Your task to perform on an android device: open sync settings in chrome Image 0: 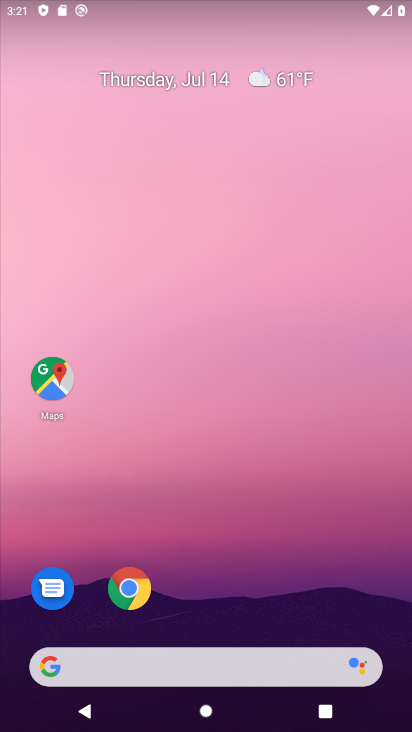
Step 0: click (142, 590)
Your task to perform on an android device: open sync settings in chrome Image 1: 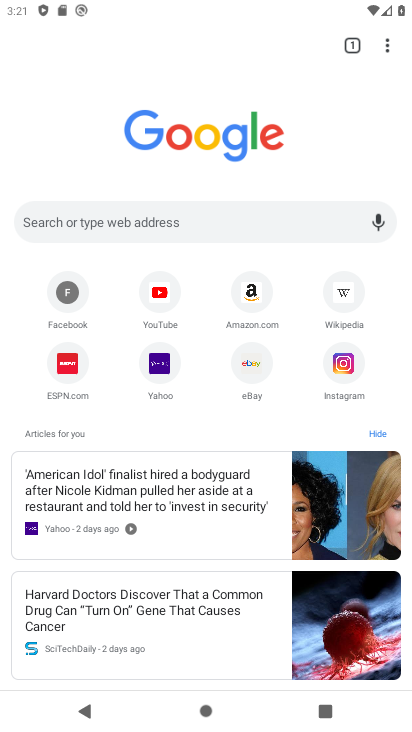
Step 1: drag from (388, 43) to (219, 382)
Your task to perform on an android device: open sync settings in chrome Image 2: 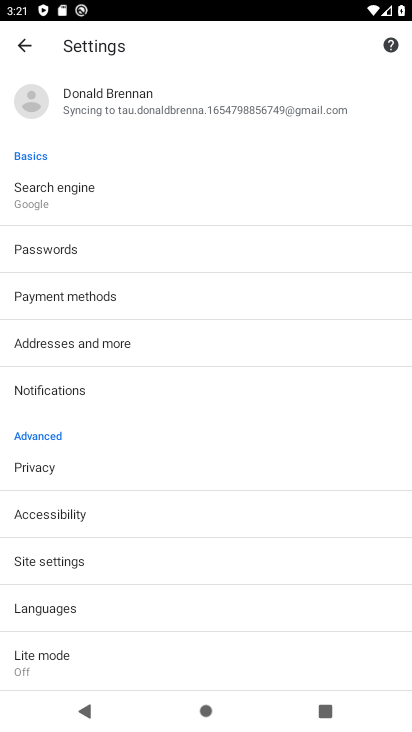
Step 2: click (33, 561)
Your task to perform on an android device: open sync settings in chrome Image 3: 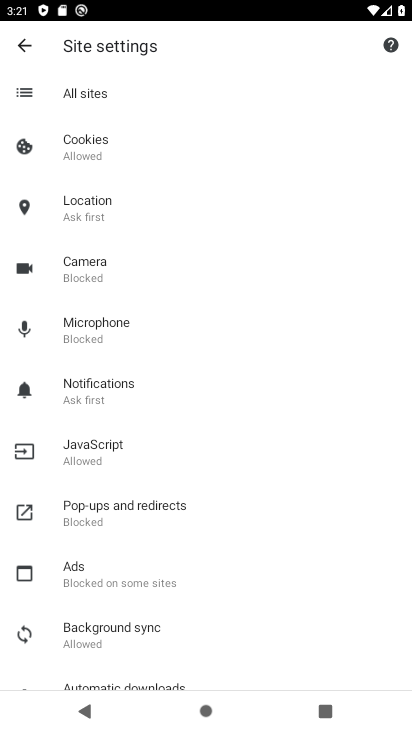
Step 3: drag from (267, 620) to (258, 476)
Your task to perform on an android device: open sync settings in chrome Image 4: 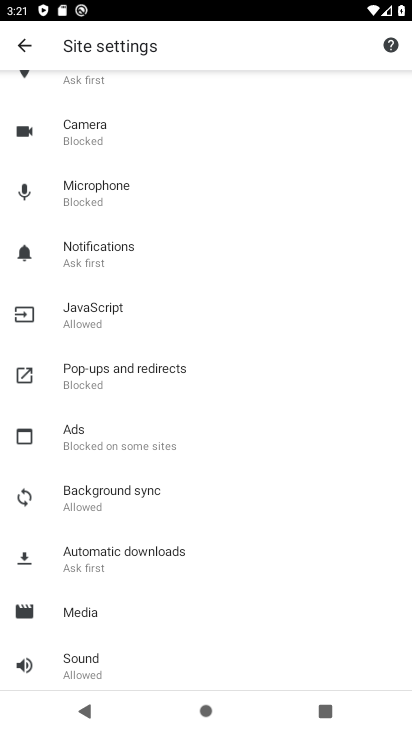
Step 4: click (117, 495)
Your task to perform on an android device: open sync settings in chrome Image 5: 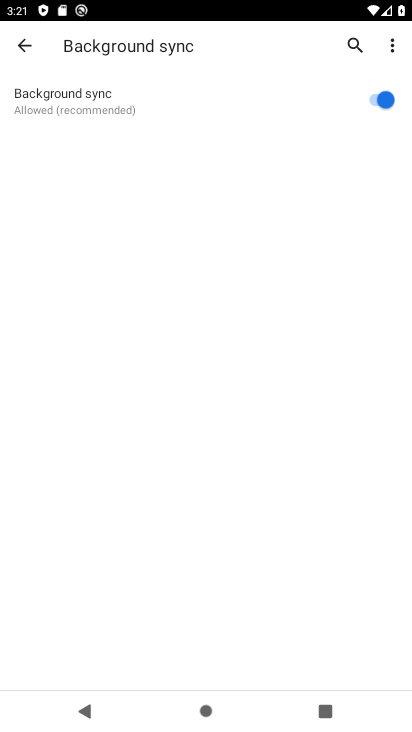
Step 5: task complete